Your task to perform on an android device: Do I have any events tomorrow? Image 0: 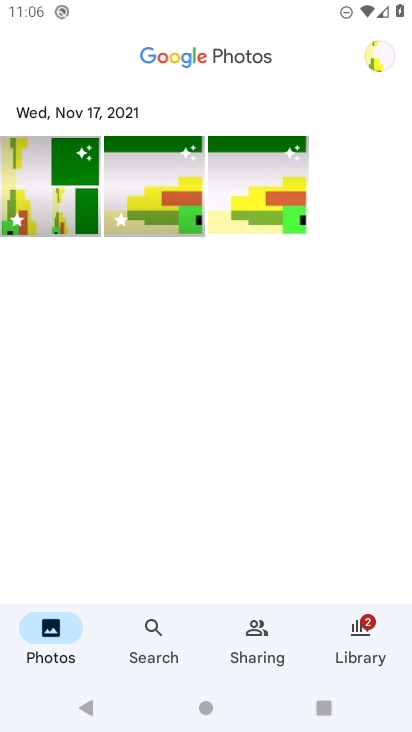
Step 0: press home button
Your task to perform on an android device: Do I have any events tomorrow? Image 1: 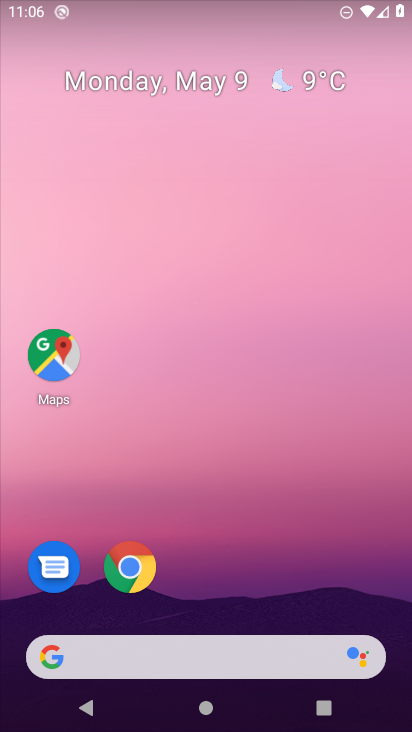
Step 1: drag from (218, 621) to (245, 12)
Your task to perform on an android device: Do I have any events tomorrow? Image 2: 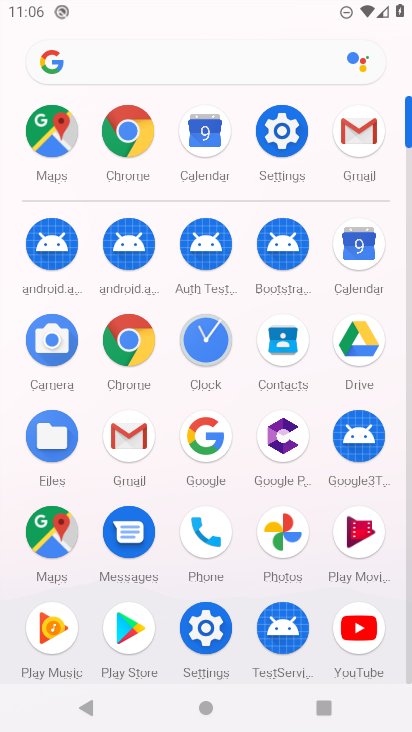
Step 2: click (202, 132)
Your task to perform on an android device: Do I have any events tomorrow? Image 3: 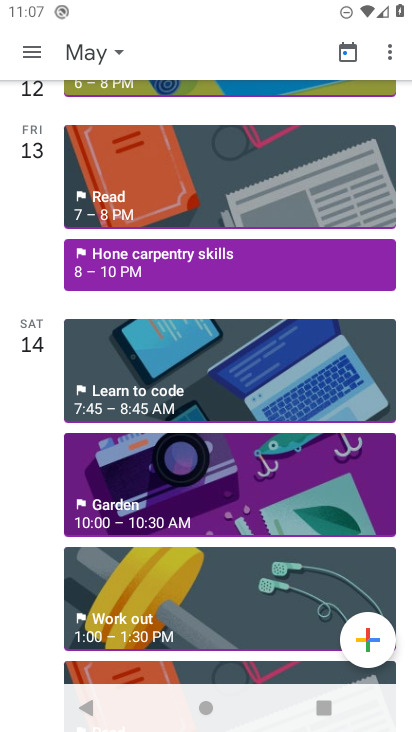
Step 3: drag from (37, 189) to (25, 684)
Your task to perform on an android device: Do I have any events tomorrow? Image 4: 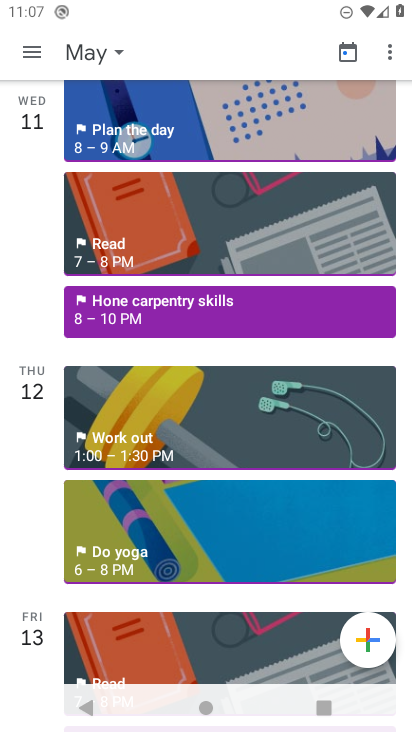
Step 4: drag from (24, 164) to (33, 588)
Your task to perform on an android device: Do I have any events tomorrow? Image 5: 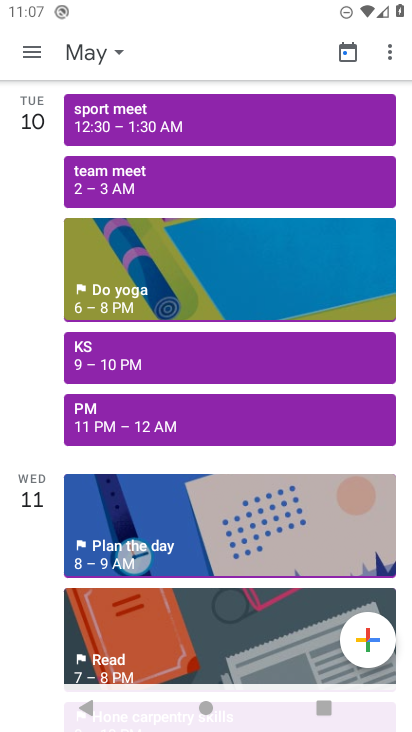
Step 5: click (41, 139)
Your task to perform on an android device: Do I have any events tomorrow? Image 6: 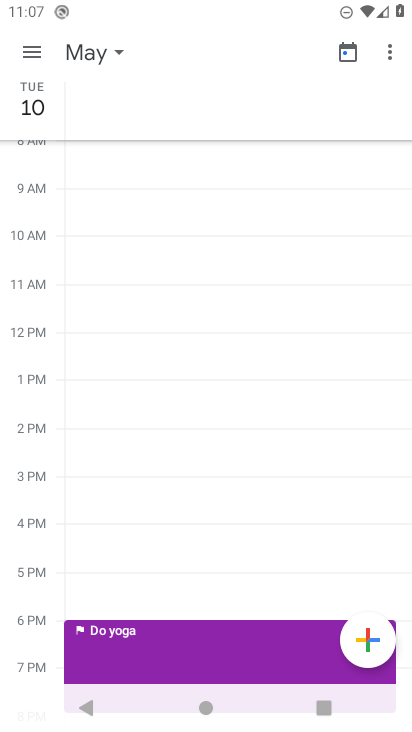
Step 6: drag from (29, 177) to (46, 580)
Your task to perform on an android device: Do I have any events tomorrow? Image 7: 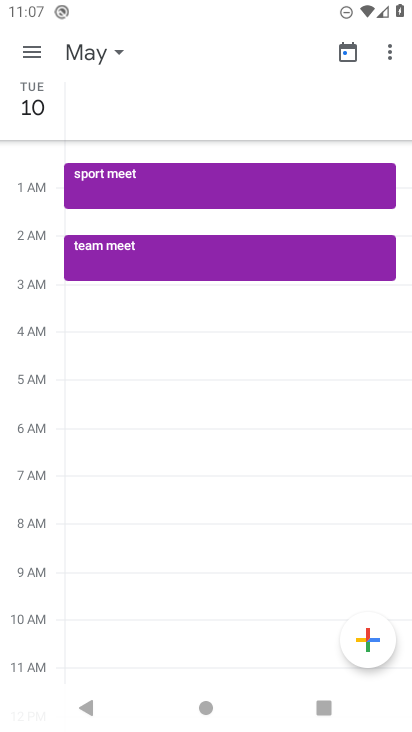
Step 7: drag from (24, 620) to (29, 268)
Your task to perform on an android device: Do I have any events tomorrow? Image 8: 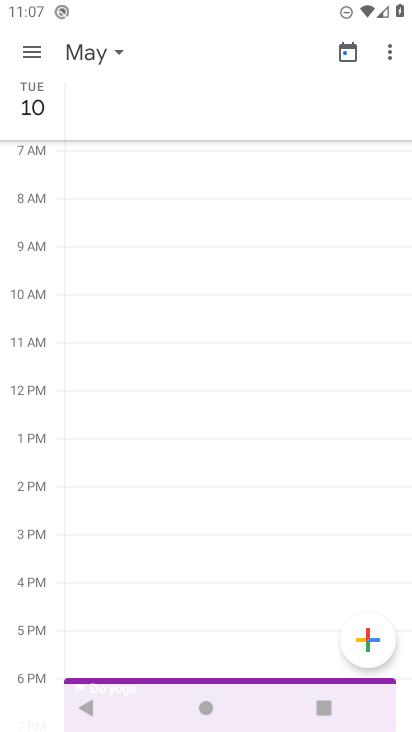
Step 8: click (35, 155)
Your task to perform on an android device: Do I have any events tomorrow? Image 9: 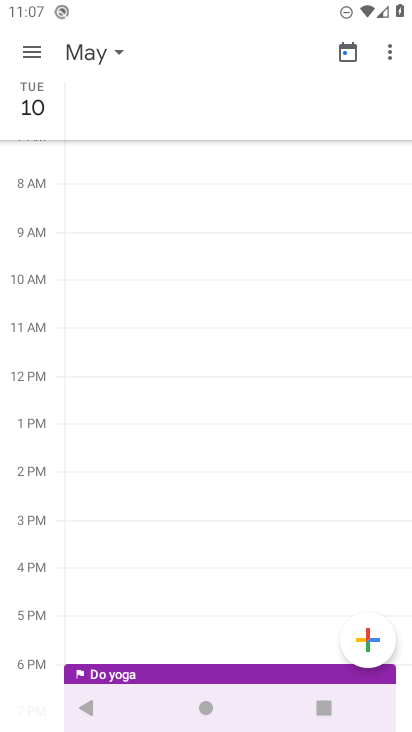
Step 9: task complete